Your task to perform on an android device: toggle data saver in the chrome app Image 0: 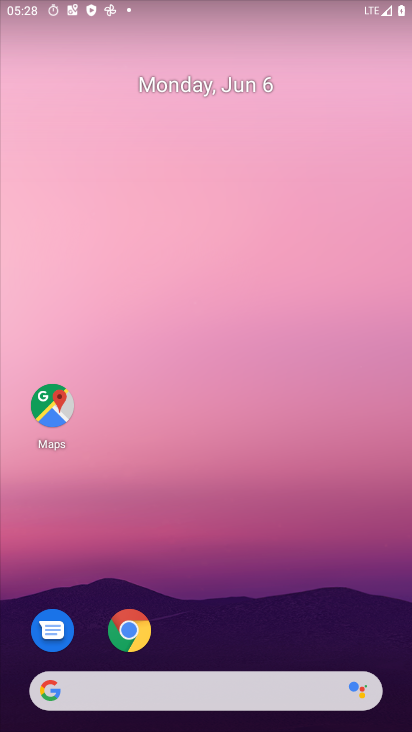
Step 0: drag from (261, 641) to (248, 156)
Your task to perform on an android device: toggle data saver in the chrome app Image 1: 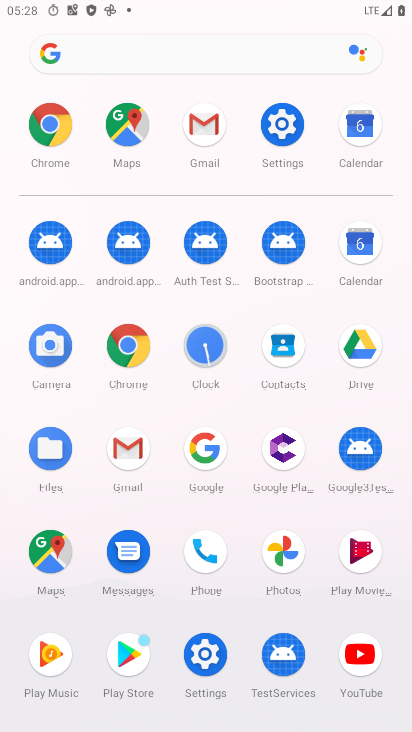
Step 1: click (129, 339)
Your task to perform on an android device: toggle data saver in the chrome app Image 2: 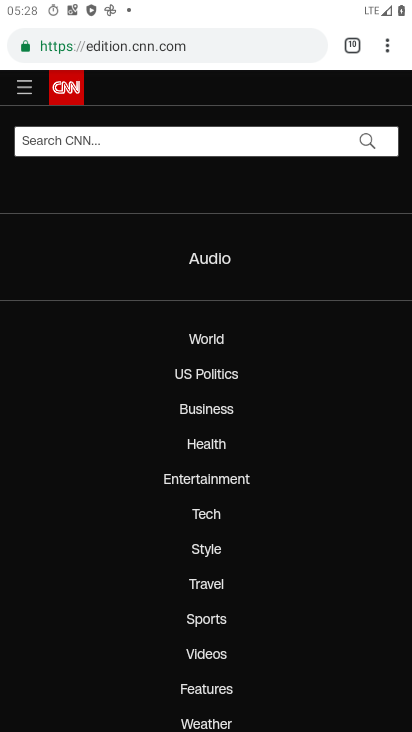
Step 2: drag from (385, 43) to (245, 544)
Your task to perform on an android device: toggle data saver in the chrome app Image 3: 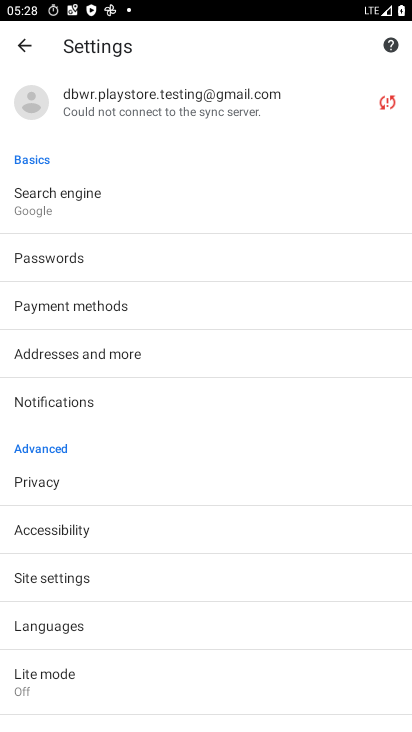
Step 3: drag from (87, 660) to (84, 316)
Your task to perform on an android device: toggle data saver in the chrome app Image 4: 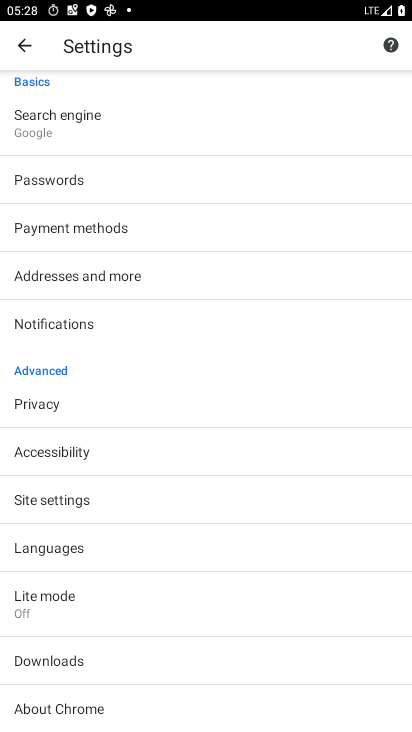
Step 4: click (41, 611)
Your task to perform on an android device: toggle data saver in the chrome app Image 5: 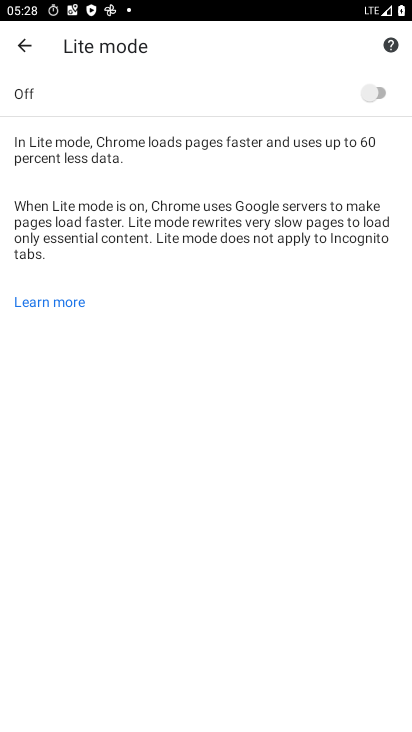
Step 5: click (372, 96)
Your task to perform on an android device: toggle data saver in the chrome app Image 6: 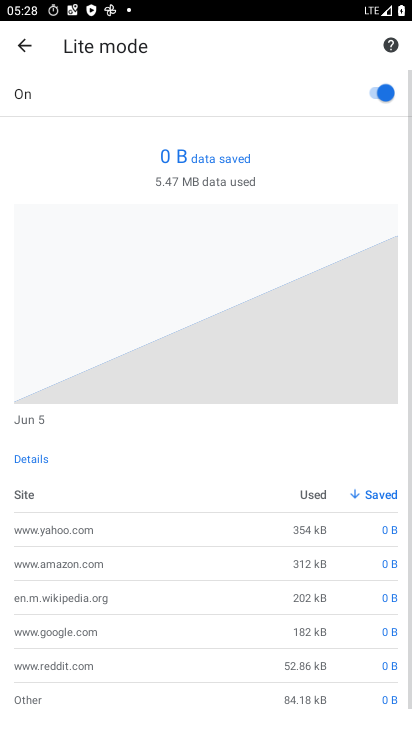
Step 6: task complete